Your task to perform on an android device: delete a single message in the gmail app Image 0: 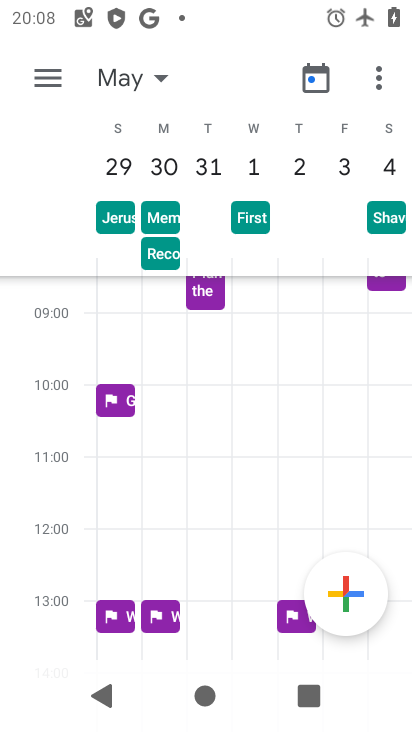
Step 0: press home button
Your task to perform on an android device: delete a single message in the gmail app Image 1: 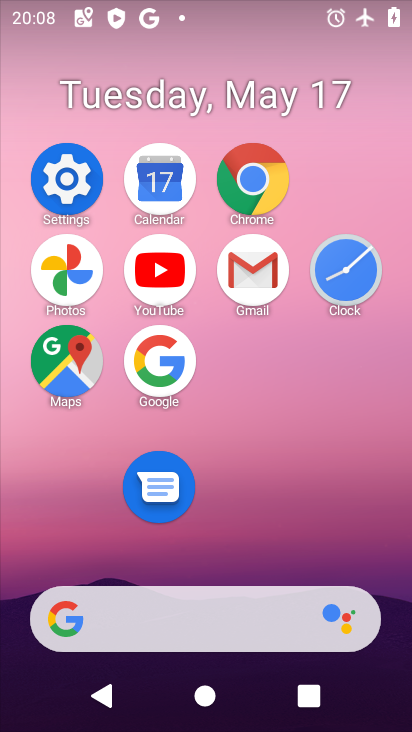
Step 1: click (251, 272)
Your task to perform on an android device: delete a single message in the gmail app Image 2: 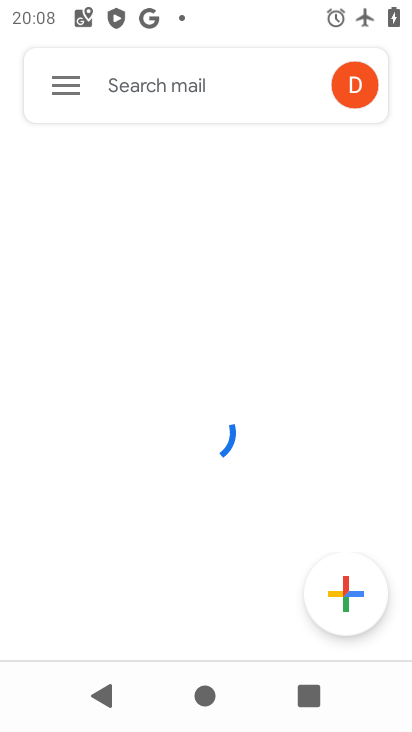
Step 2: click (59, 86)
Your task to perform on an android device: delete a single message in the gmail app Image 3: 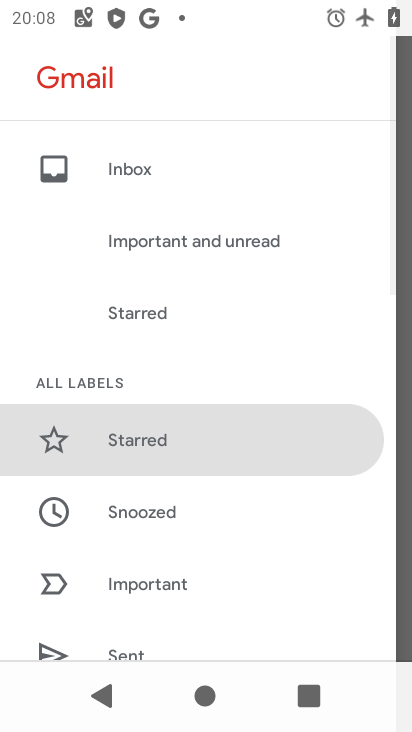
Step 3: drag from (245, 499) to (257, 144)
Your task to perform on an android device: delete a single message in the gmail app Image 4: 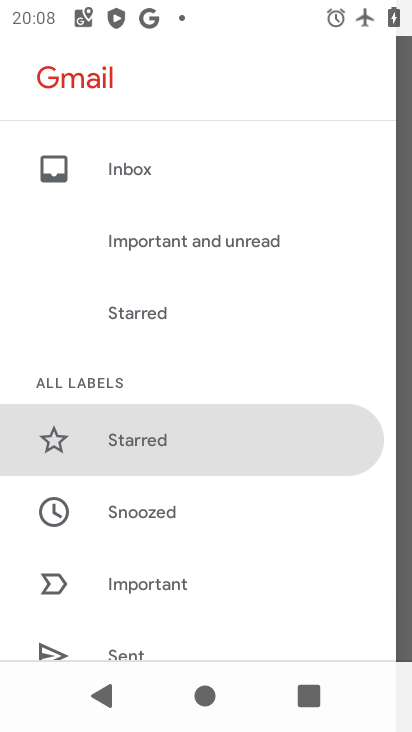
Step 4: drag from (210, 579) to (241, 214)
Your task to perform on an android device: delete a single message in the gmail app Image 5: 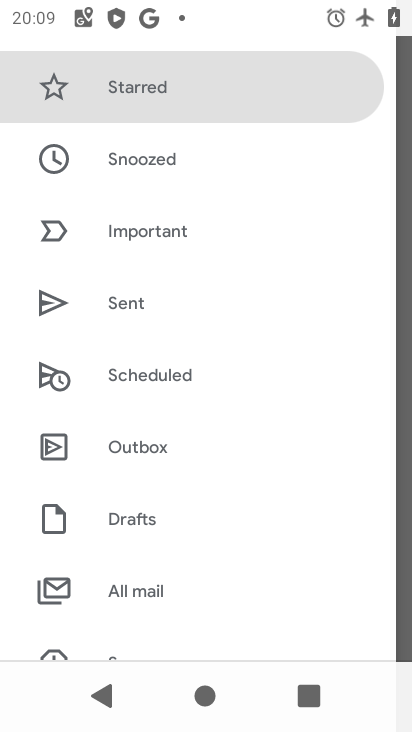
Step 5: click (176, 583)
Your task to perform on an android device: delete a single message in the gmail app Image 6: 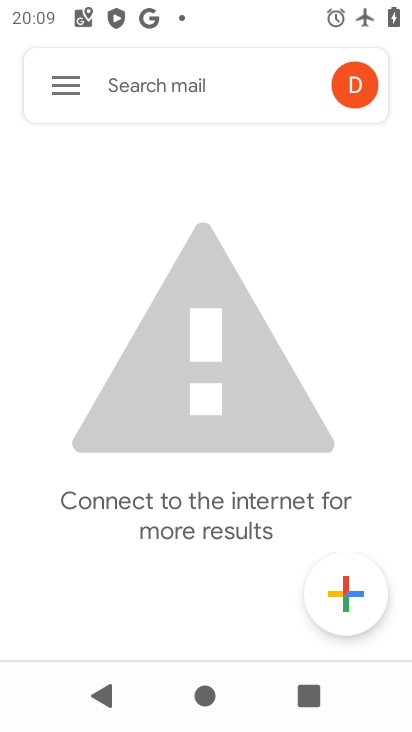
Step 6: task complete